Your task to perform on an android device: Go to Maps Image 0: 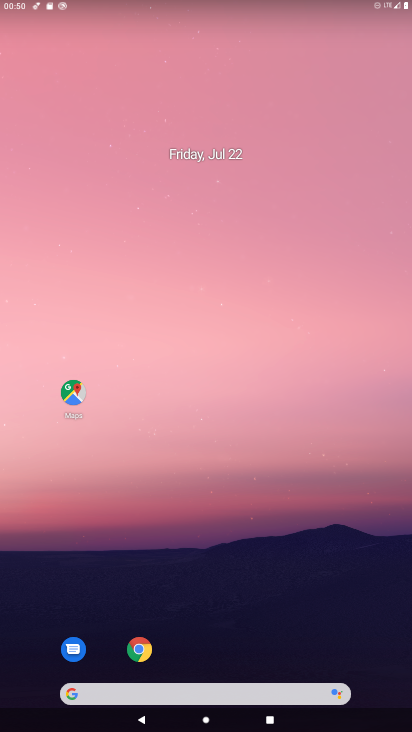
Step 0: drag from (232, 660) to (232, 369)
Your task to perform on an android device: Go to Maps Image 1: 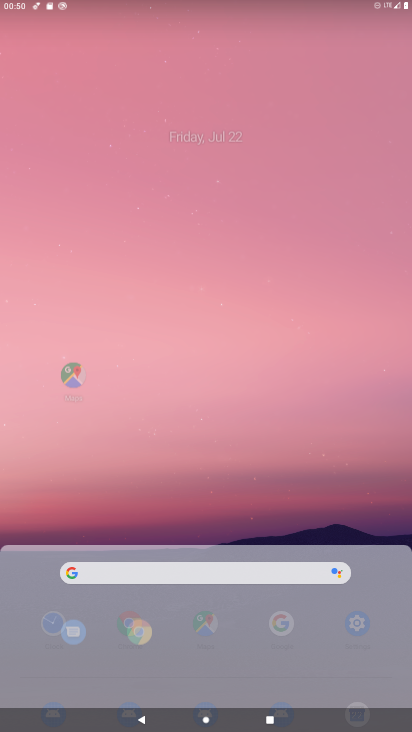
Step 1: click (232, 79)
Your task to perform on an android device: Go to Maps Image 2: 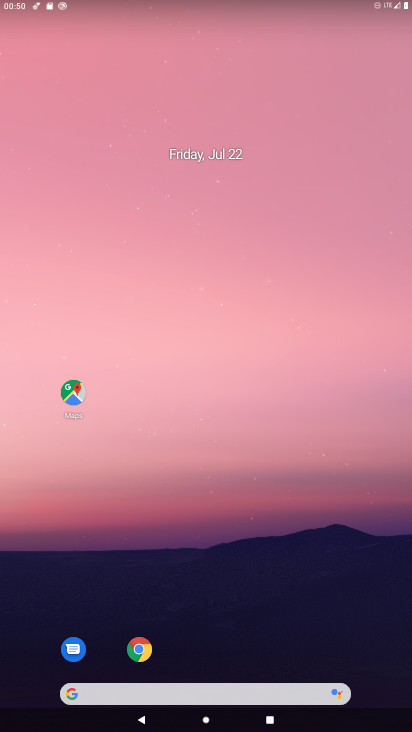
Step 2: drag from (237, 725) to (232, 128)
Your task to perform on an android device: Go to Maps Image 3: 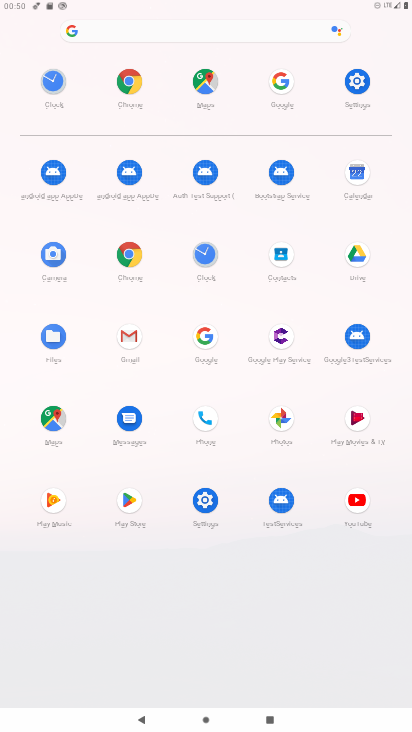
Step 3: click (50, 416)
Your task to perform on an android device: Go to Maps Image 4: 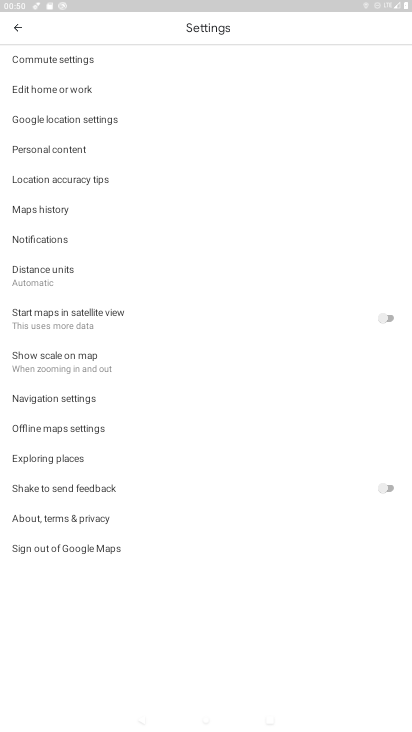
Step 4: click (12, 25)
Your task to perform on an android device: Go to Maps Image 5: 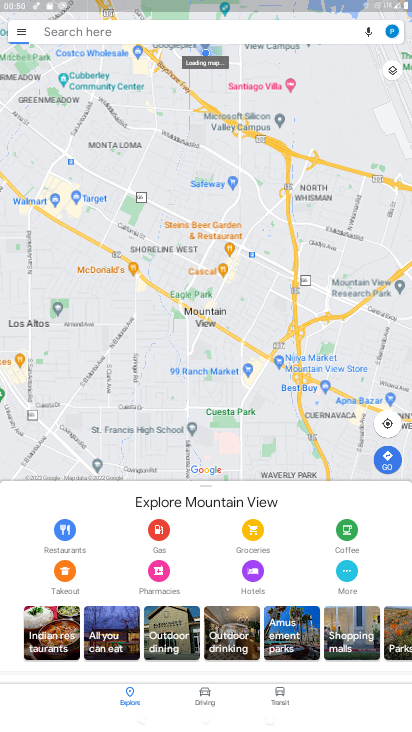
Step 5: task complete